Your task to perform on an android device: turn off data saver in the chrome app Image 0: 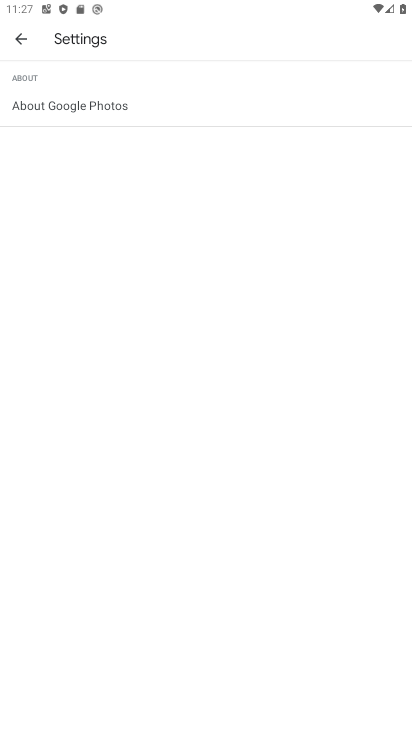
Step 0: press home button
Your task to perform on an android device: turn off data saver in the chrome app Image 1: 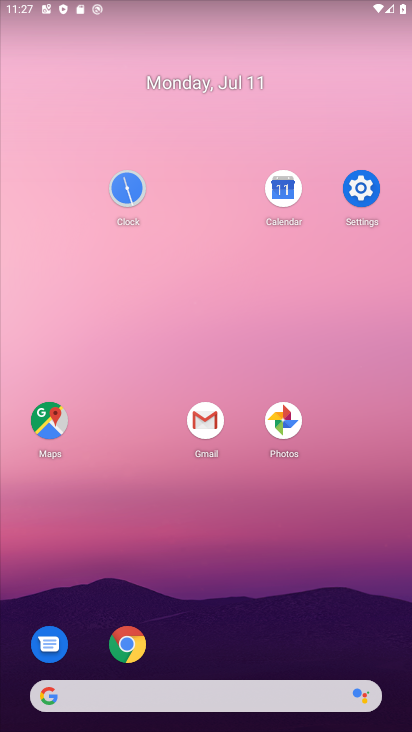
Step 1: click (145, 639)
Your task to perform on an android device: turn off data saver in the chrome app Image 2: 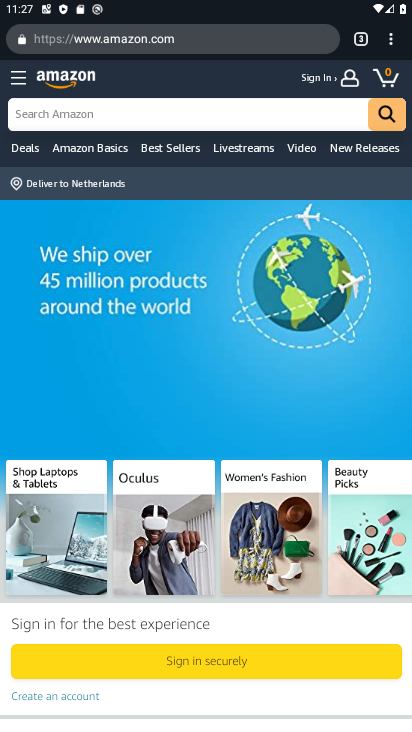
Step 2: click (393, 34)
Your task to perform on an android device: turn off data saver in the chrome app Image 3: 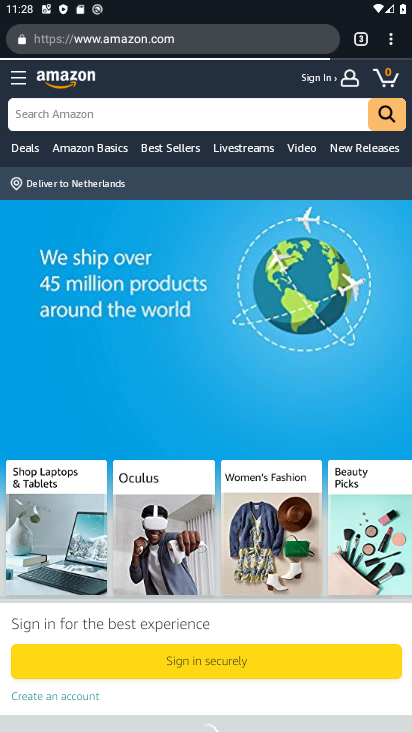
Step 3: click (390, 43)
Your task to perform on an android device: turn off data saver in the chrome app Image 4: 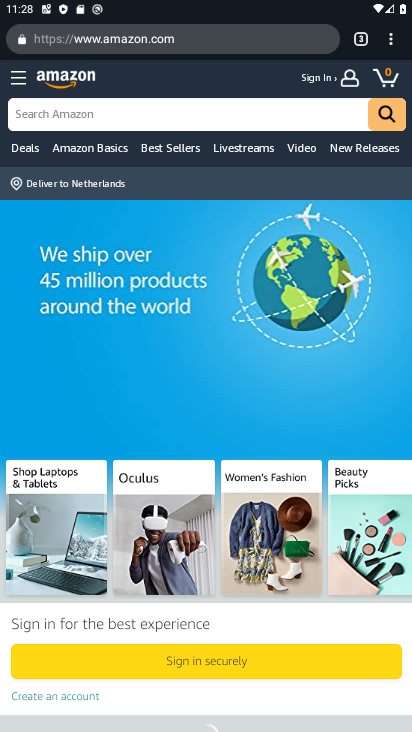
Step 4: click (399, 33)
Your task to perform on an android device: turn off data saver in the chrome app Image 5: 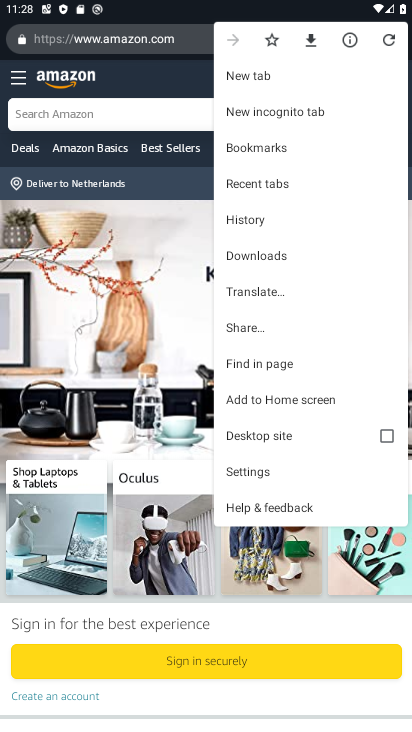
Step 5: click (268, 476)
Your task to perform on an android device: turn off data saver in the chrome app Image 6: 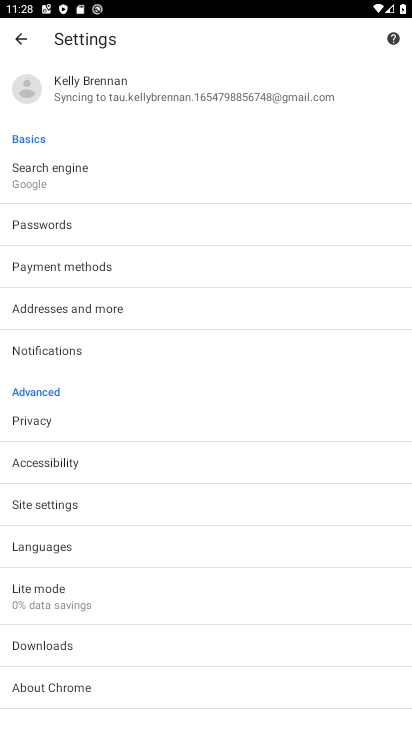
Step 6: drag from (123, 590) to (144, 400)
Your task to perform on an android device: turn off data saver in the chrome app Image 7: 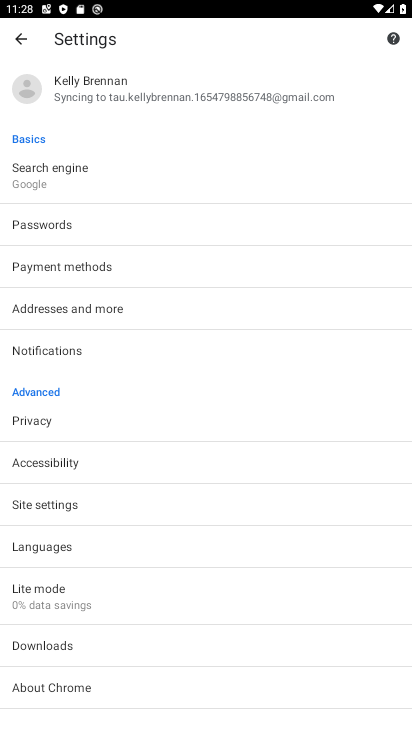
Step 7: click (91, 586)
Your task to perform on an android device: turn off data saver in the chrome app Image 8: 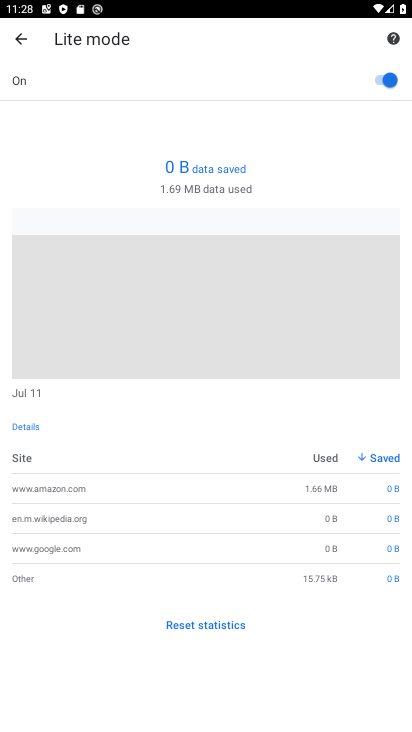
Step 8: click (378, 80)
Your task to perform on an android device: turn off data saver in the chrome app Image 9: 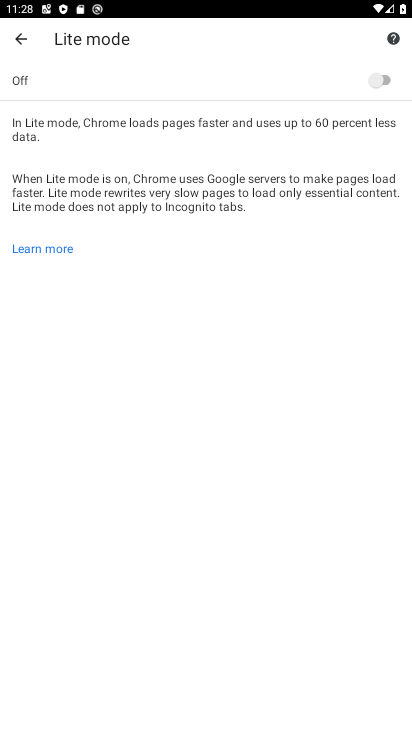
Step 9: task complete